Your task to perform on an android device: Add "razer blade" to the cart on walmart.com Image 0: 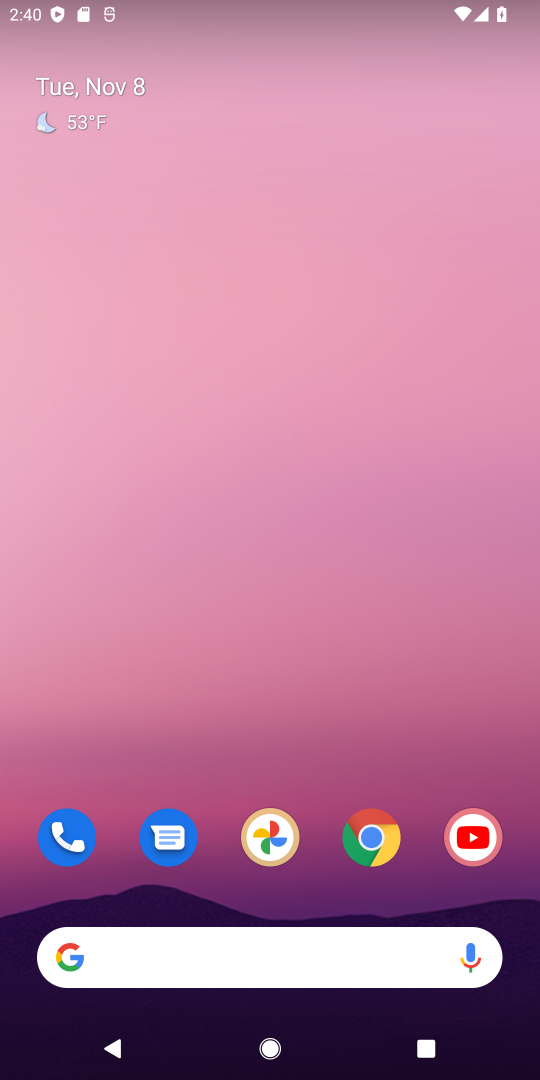
Step 0: click (370, 845)
Your task to perform on an android device: Add "razer blade" to the cart on walmart.com Image 1: 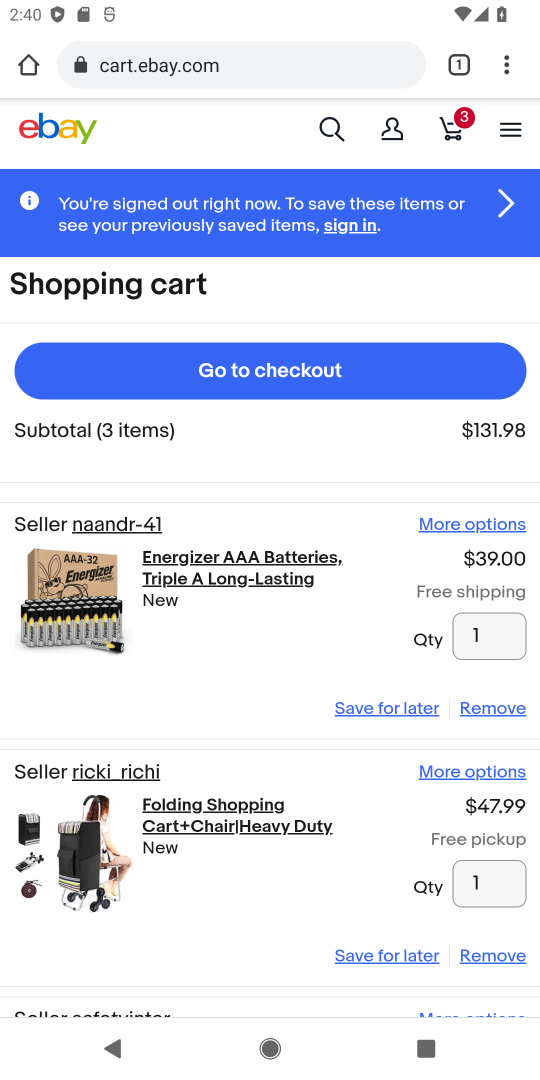
Step 1: click (280, 379)
Your task to perform on an android device: Add "razer blade" to the cart on walmart.com Image 2: 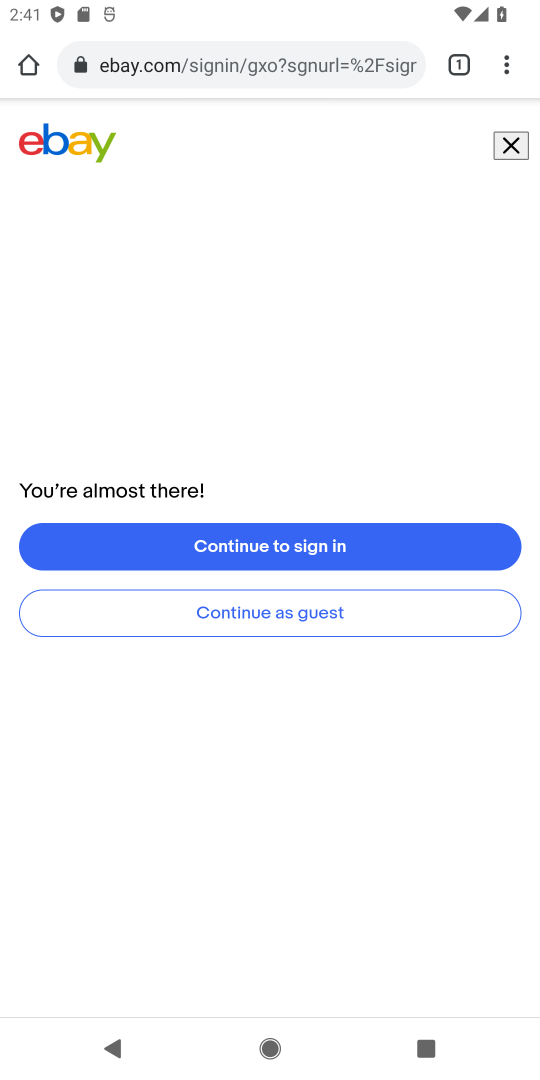
Step 2: click (244, 64)
Your task to perform on an android device: Add "razer blade" to the cart on walmart.com Image 3: 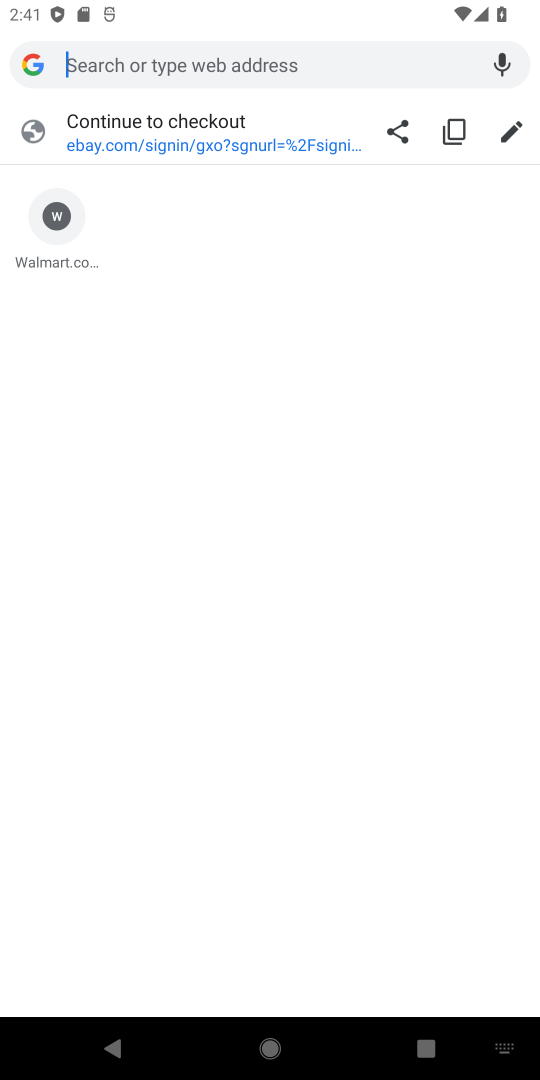
Step 3: type "walmart"
Your task to perform on an android device: Add "razer blade" to the cart on walmart.com Image 4: 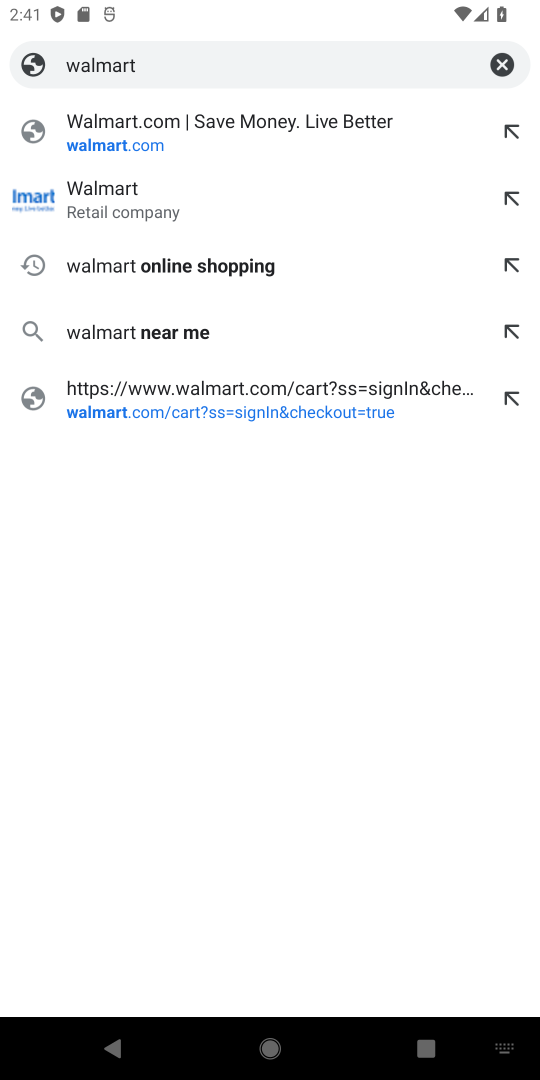
Step 4: click (86, 213)
Your task to perform on an android device: Add "razer blade" to the cart on walmart.com Image 5: 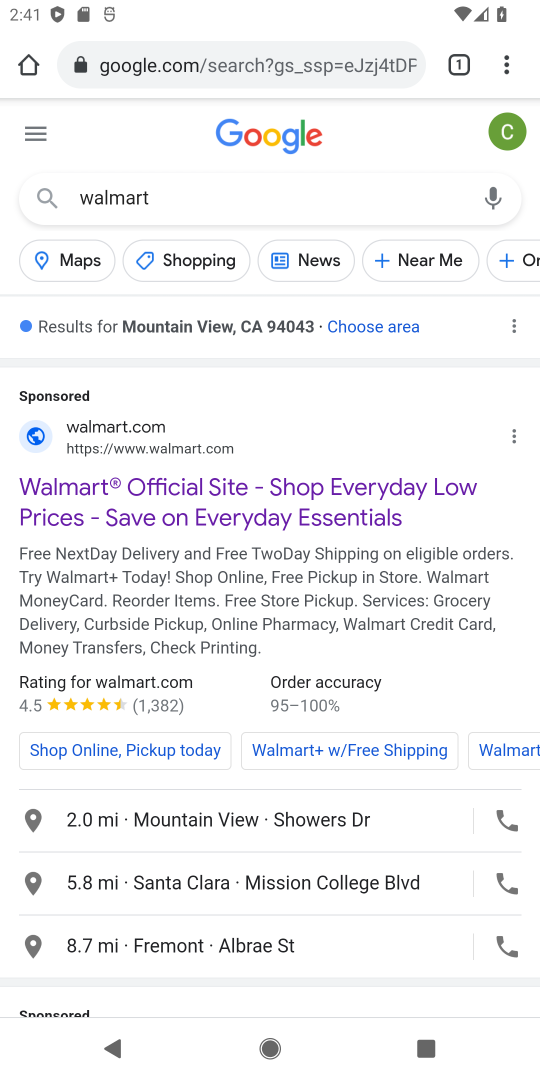
Step 5: drag from (182, 746) to (148, 212)
Your task to perform on an android device: Add "razer blade" to the cart on walmart.com Image 6: 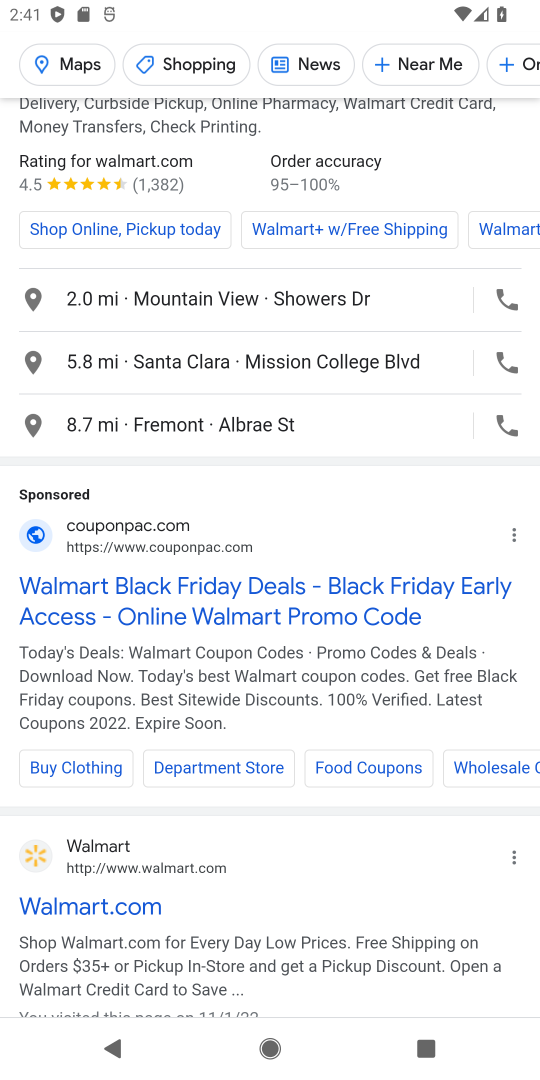
Step 6: click (149, 585)
Your task to perform on an android device: Add "razer blade" to the cart on walmart.com Image 7: 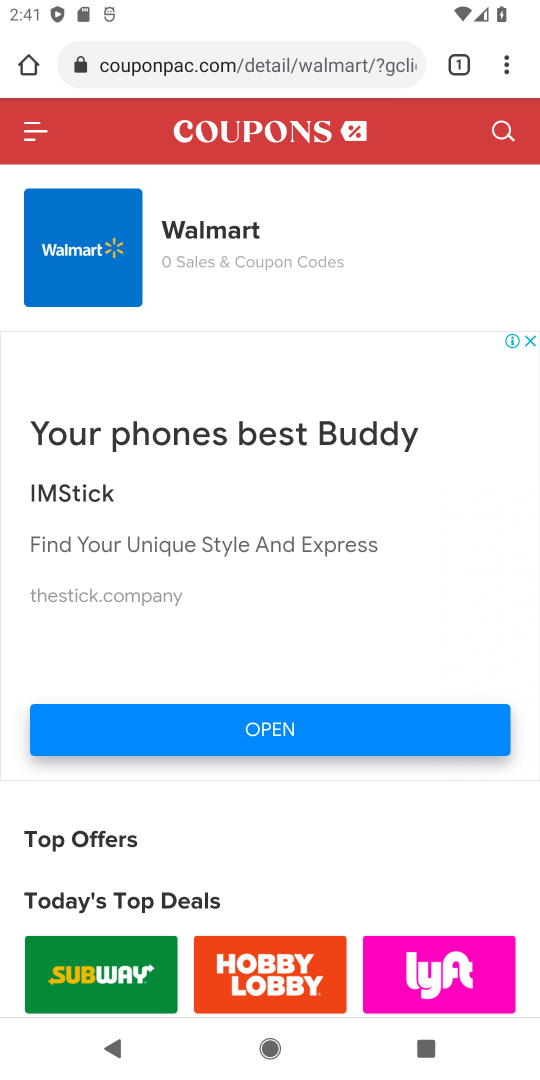
Step 7: click (497, 121)
Your task to perform on an android device: Add "razer blade" to the cart on walmart.com Image 8: 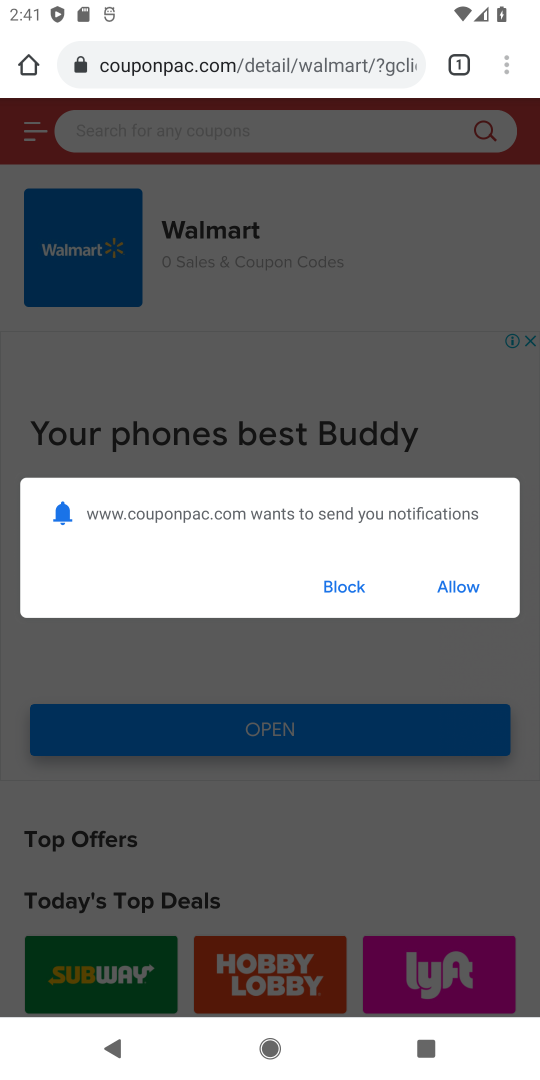
Step 8: click (434, 586)
Your task to perform on an android device: Add "razer blade" to the cart on walmart.com Image 9: 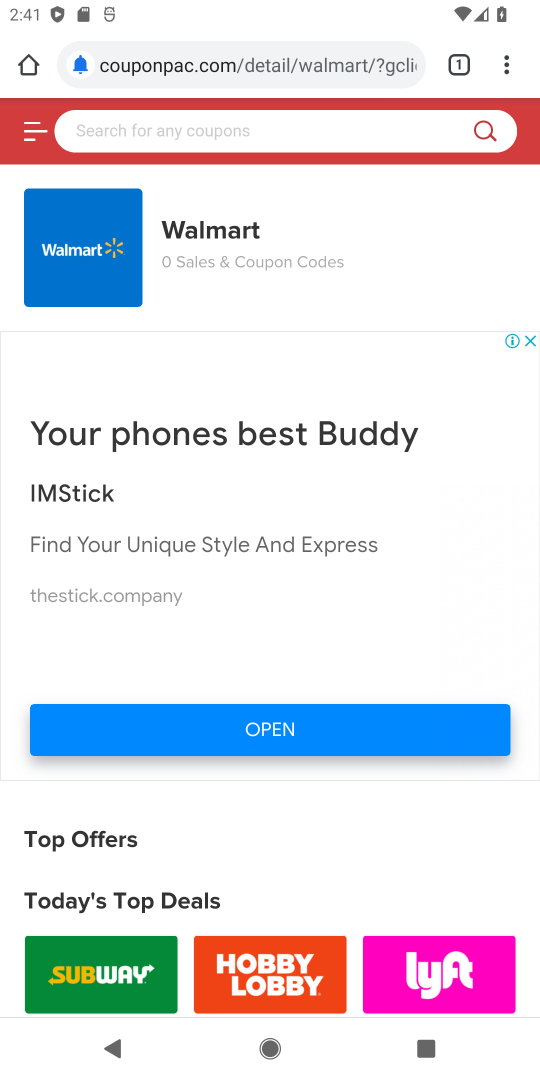
Step 9: click (215, 120)
Your task to perform on an android device: Add "razer blade" to the cart on walmart.com Image 10: 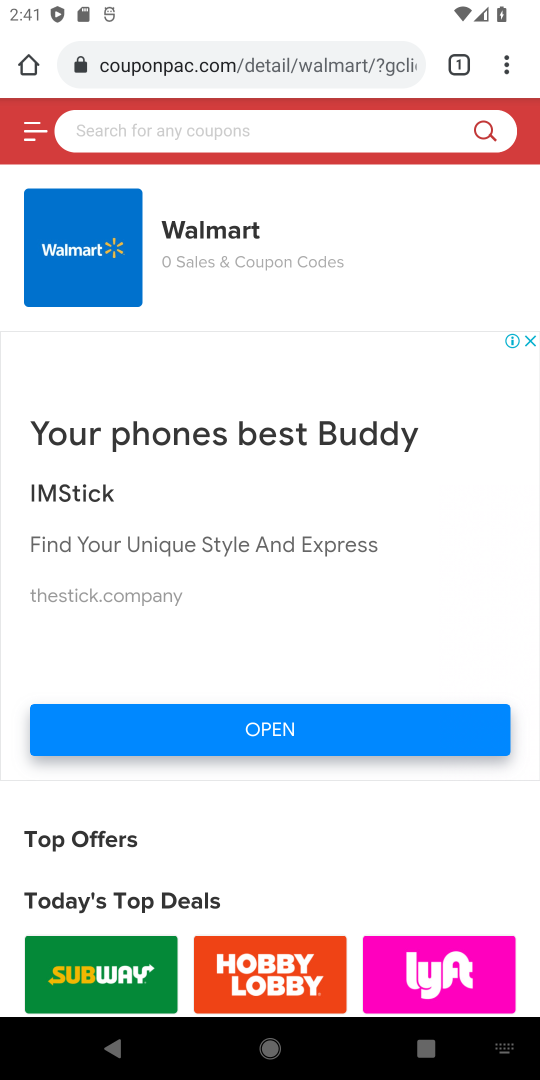
Step 10: type "razer blade"
Your task to perform on an android device: Add "razer blade" to the cart on walmart.com Image 11: 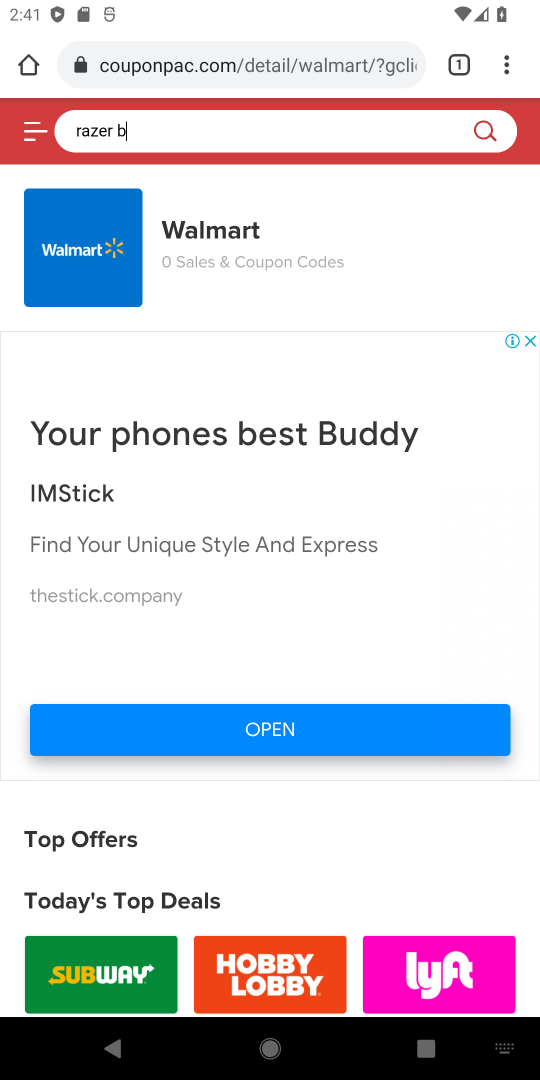
Step 11: type ""
Your task to perform on an android device: Add "razer blade" to the cart on walmart.com Image 12: 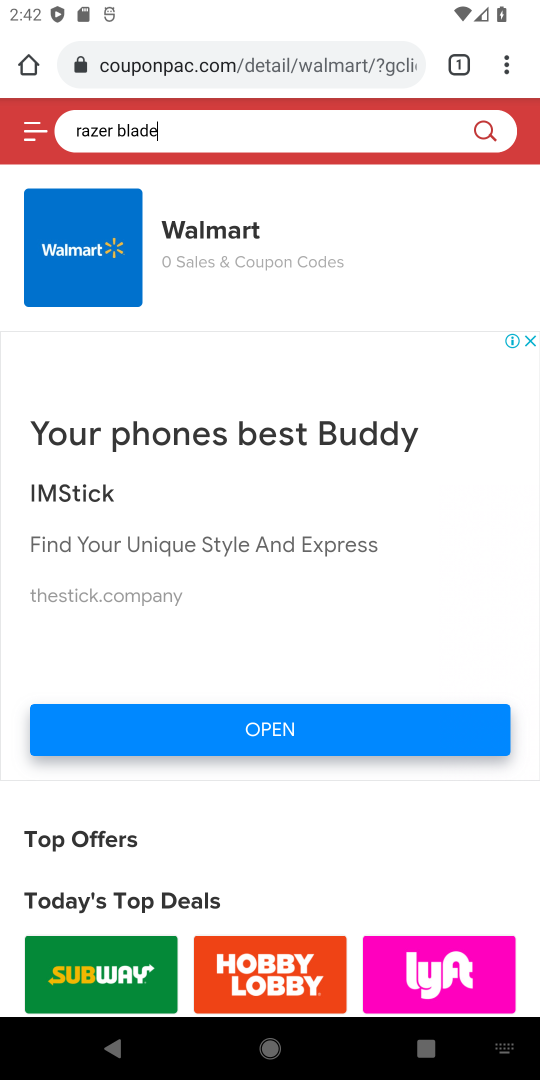
Step 12: drag from (304, 483) to (295, 326)
Your task to perform on an android device: Add "razer blade" to the cart on walmart.com Image 13: 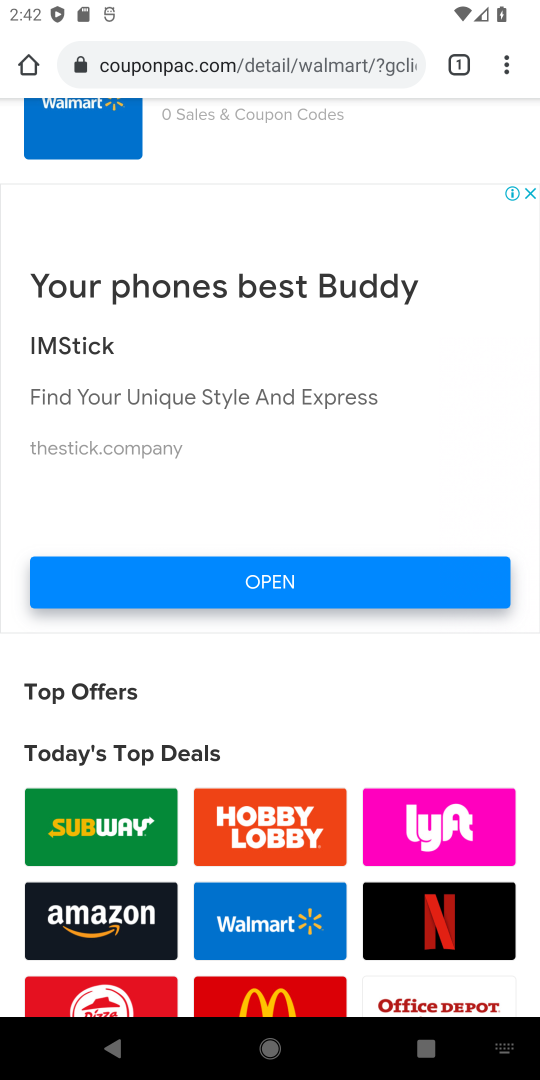
Step 13: click (531, 194)
Your task to perform on an android device: Add "razer blade" to the cart on walmart.com Image 14: 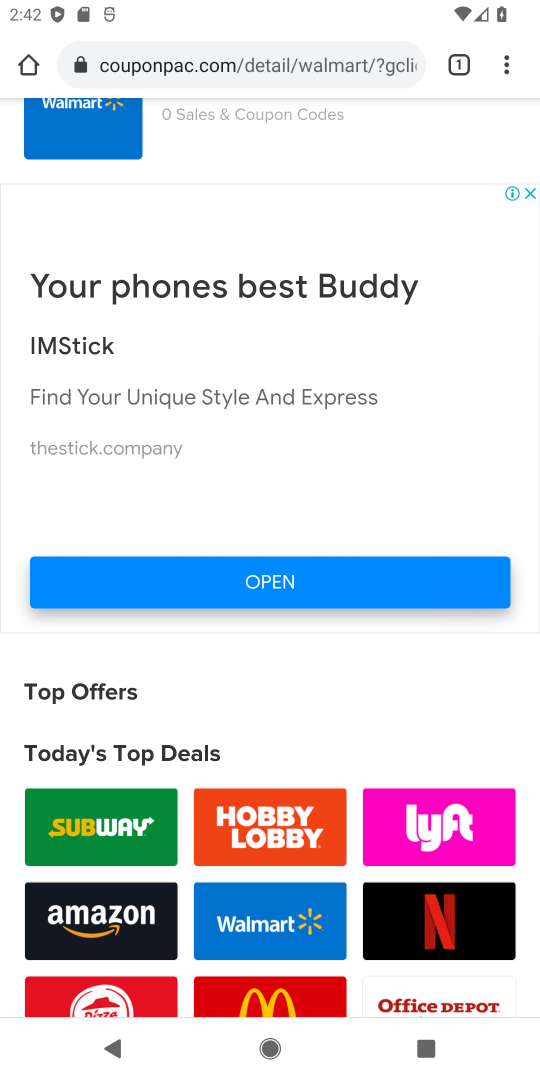
Step 14: click (532, 193)
Your task to perform on an android device: Add "razer blade" to the cart on walmart.com Image 15: 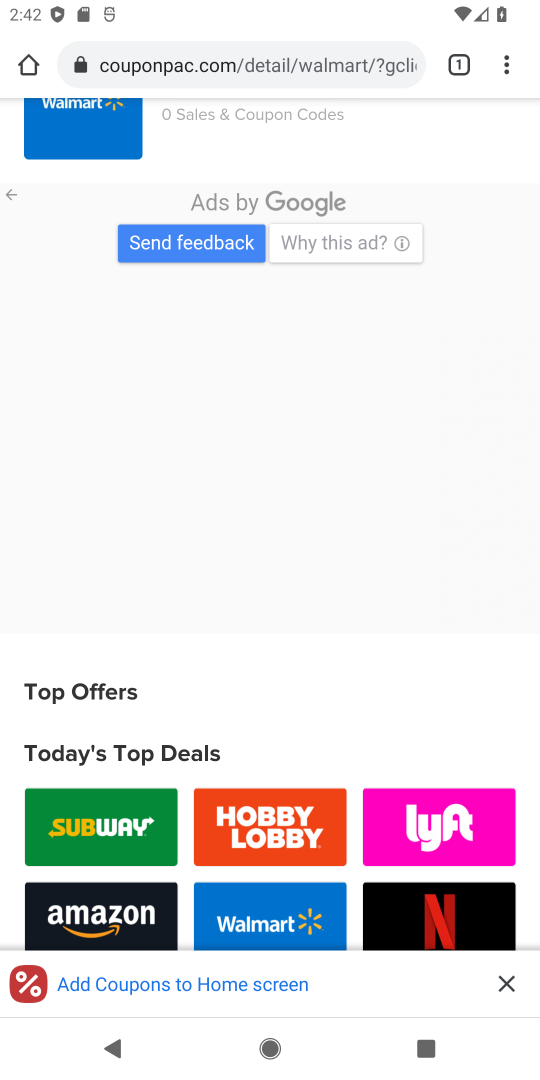
Step 15: drag from (302, 452) to (338, 866)
Your task to perform on an android device: Add "razer blade" to the cart on walmart.com Image 16: 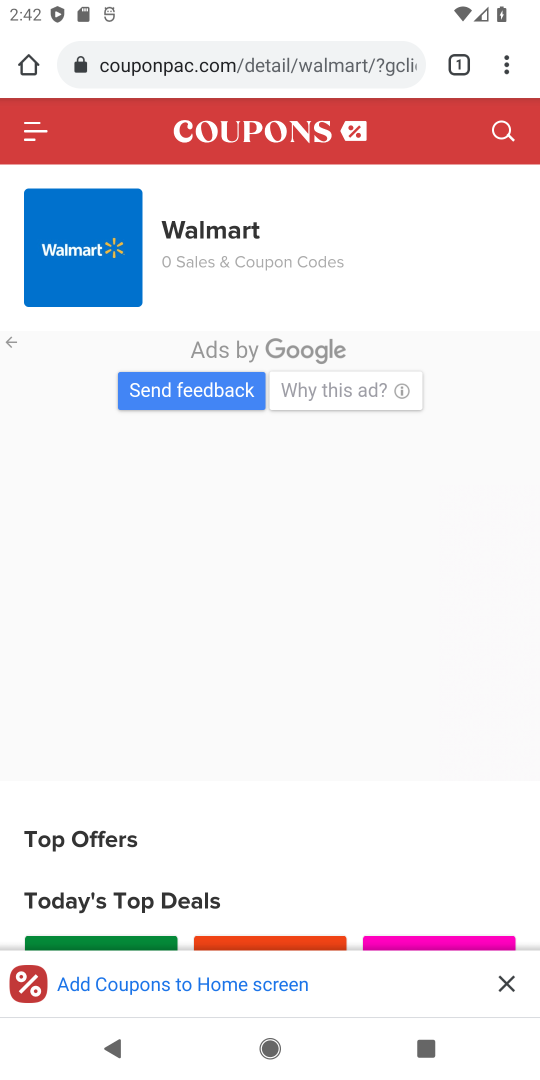
Step 16: click (162, 58)
Your task to perform on an android device: Add "razer blade" to the cart on walmart.com Image 17: 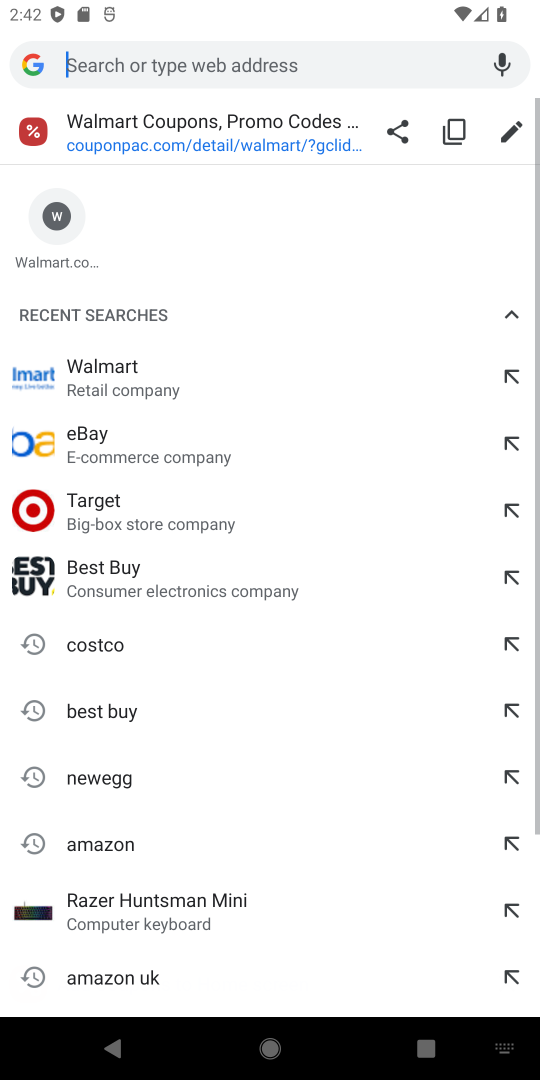
Step 17: click (87, 394)
Your task to perform on an android device: Add "razer blade" to the cart on walmart.com Image 18: 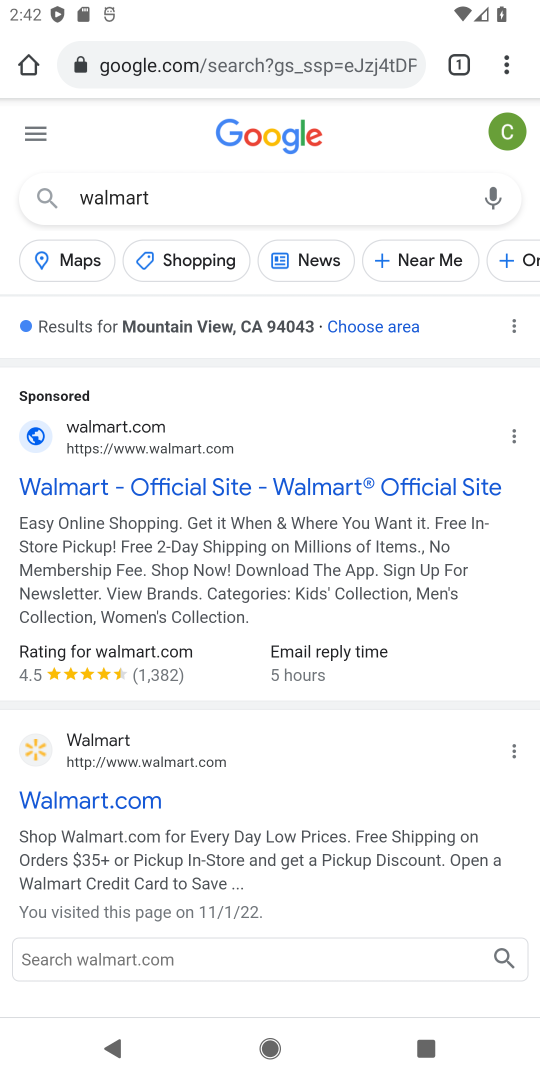
Step 18: drag from (206, 860) to (251, 311)
Your task to perform on an android device: Add "razer blade" to the cart on walmart.com Image 19: 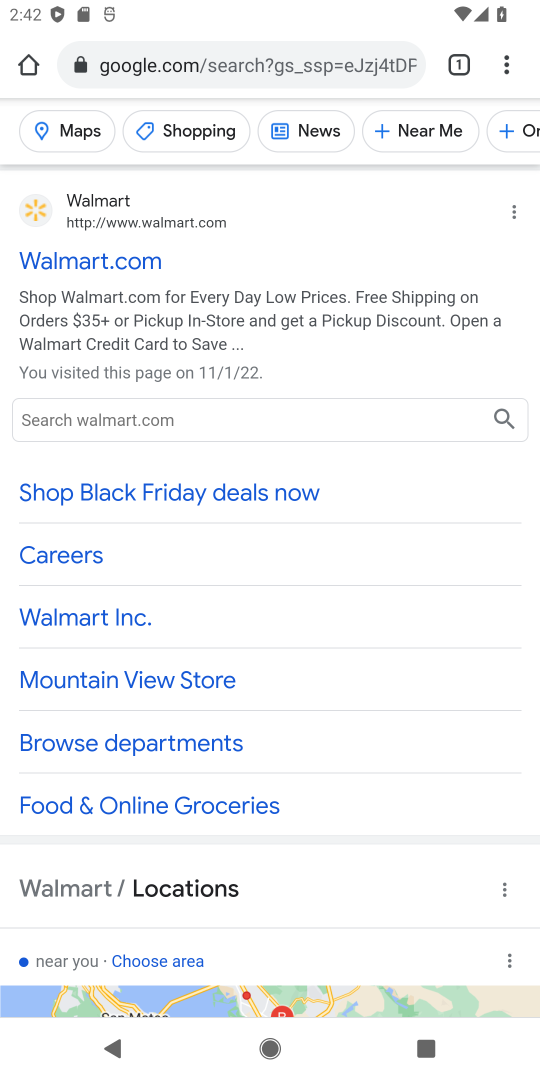
Step 19: click (70, 259)
Your task to perform on an android device: Add "razer blade" to the cart on walmart.com Image 20: 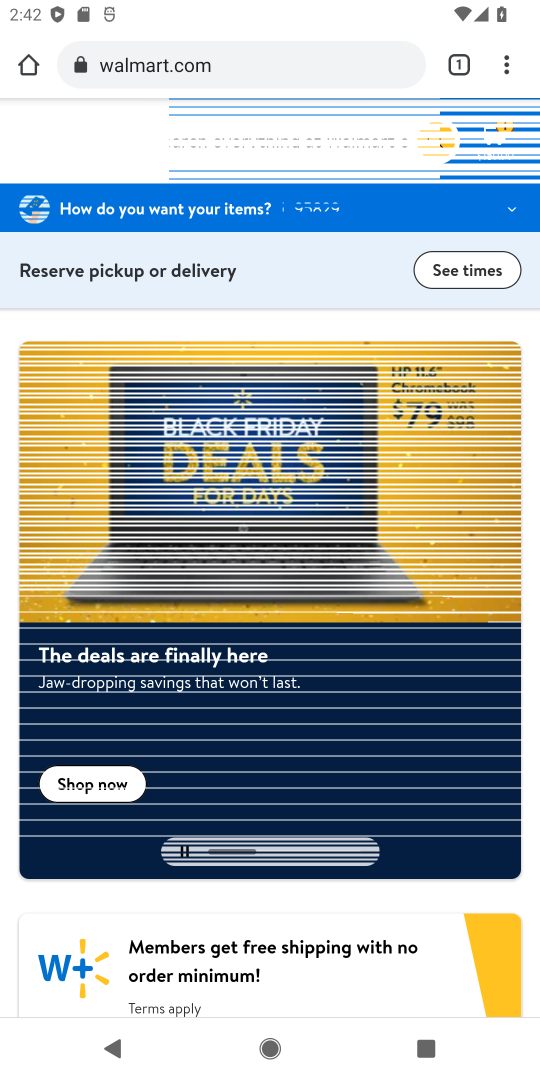
Step 20: click (323, 135)
Your task to perform on an android device: Add "razer blade" to the cart on walmart.com Image 21: 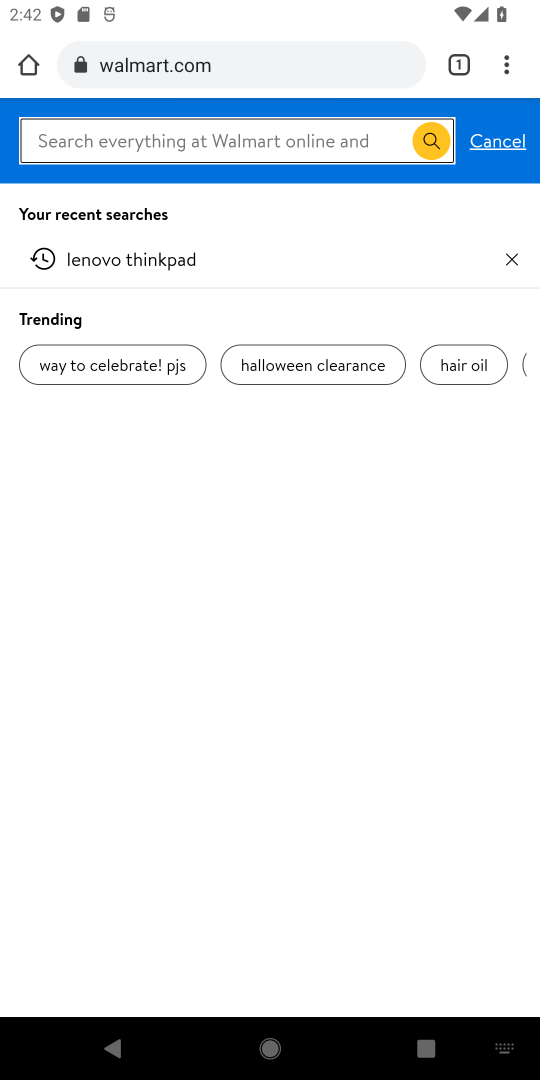
Step 21: type "razer blade"
Your task to perform on an android device: Add "razer blade" to the cart on walmart.com Image 22: 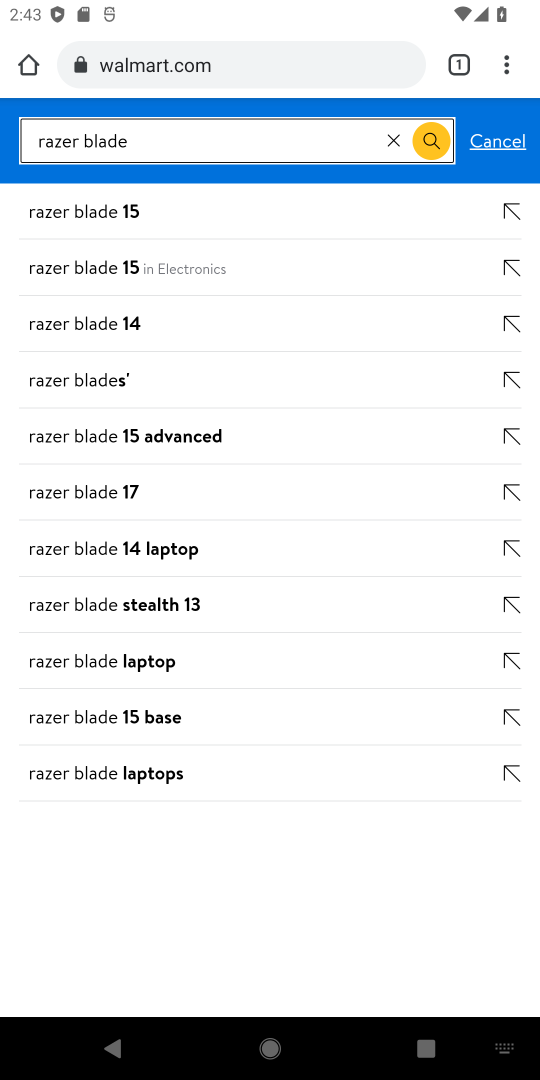
Step 22: click (51, 378)
Your task to perform on an android device: Add "razer blade" to the cart on walmart.com Image 23: 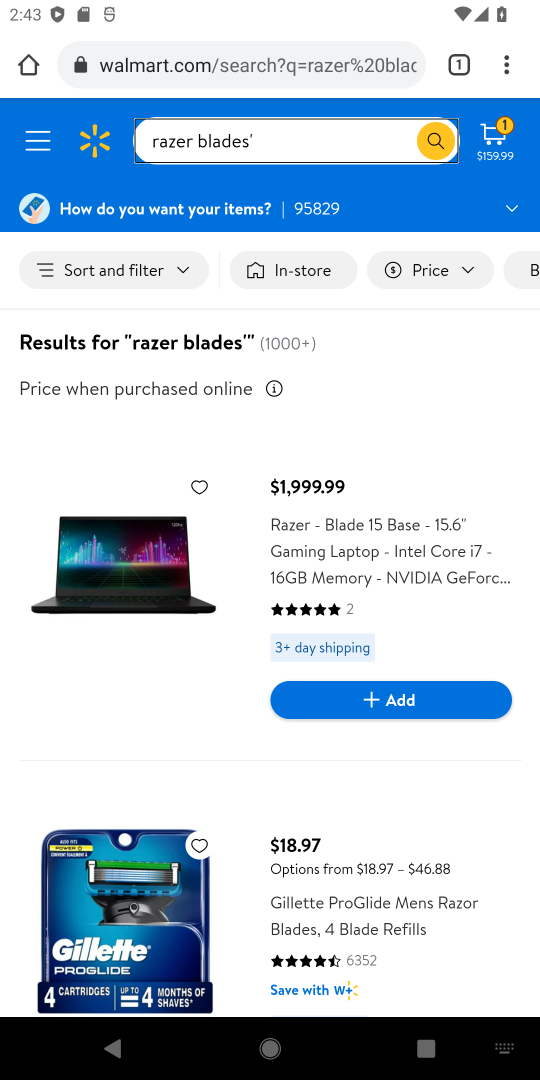
Step 23: click (327, 518)
Your task to perform on an android device: Add "razer blade" to the cart on walmart.com Image 24: 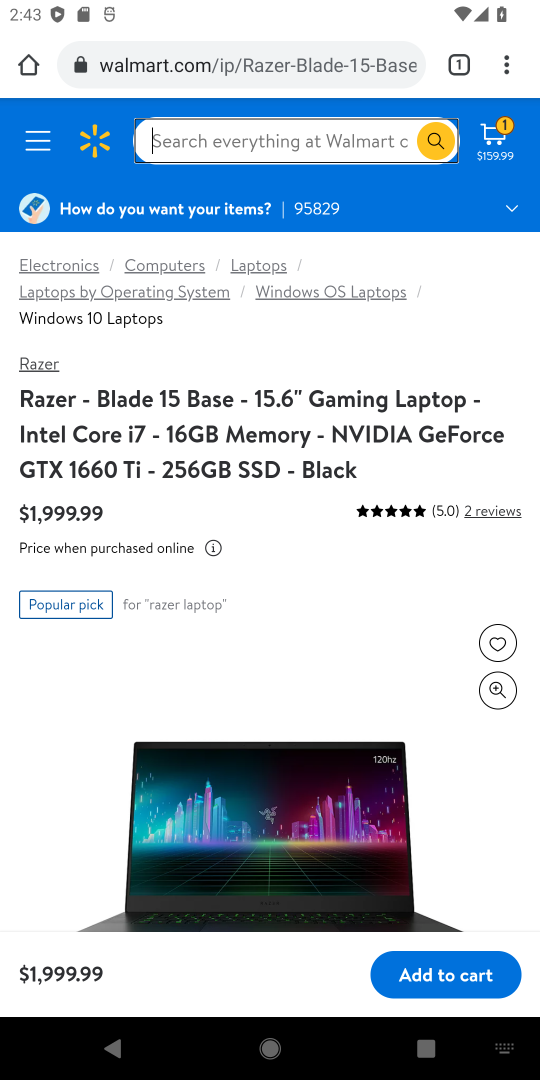
Step 24: drag from (284, 654) to (244, 382)
Your task to perform on an android device: Add "razer blade" to the cart on walmart.com Image 25: 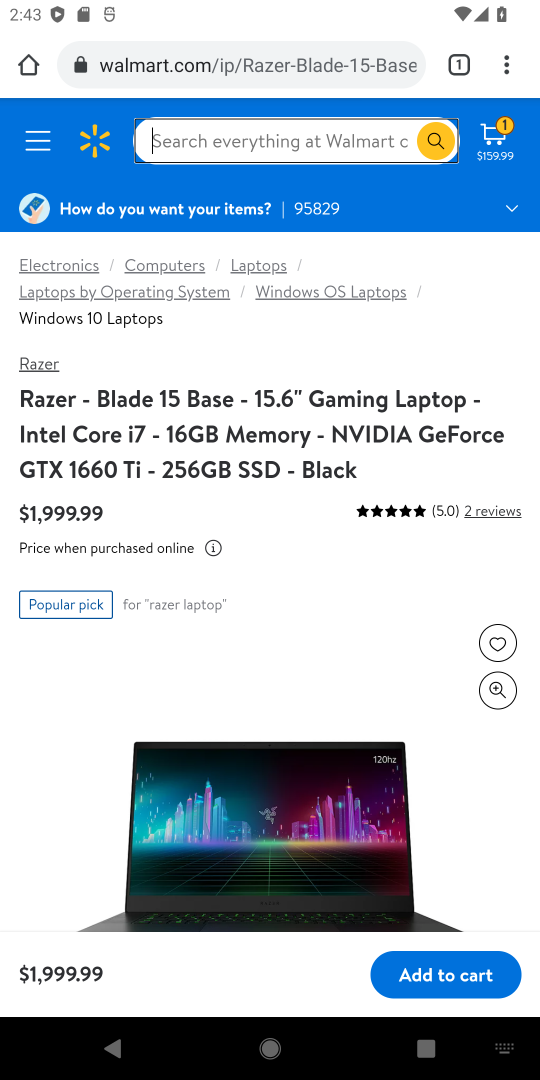
Step 25: drag from (227, 720) to (232, 381)
Your task to perform on an android device: Add "razer blade" to the cart on walmart.com Image 26: 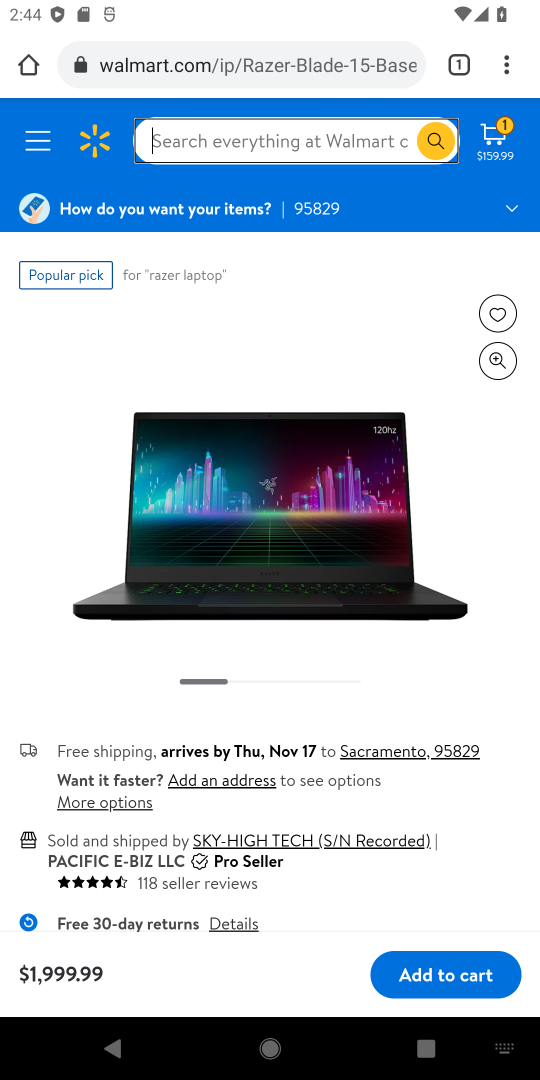
Step 26: type "razer blade"
Your task to perform on an android device: Add "razer blade" to the cart on walmart.com Image 27: 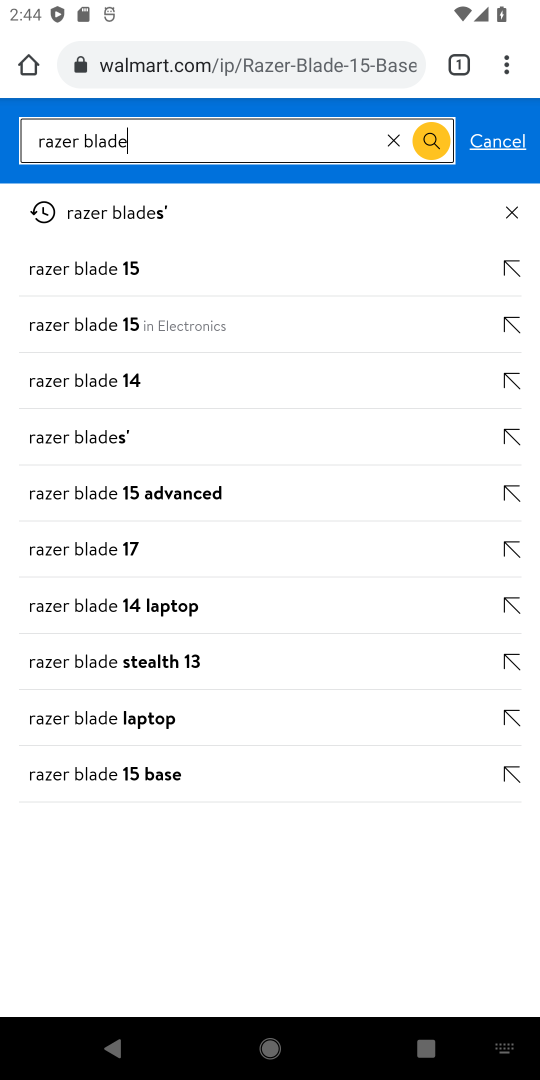
Step 27: click (103, 267)
Your task to perform on an android device: Add "razer blade" to the cart on walmart.com Image 28: 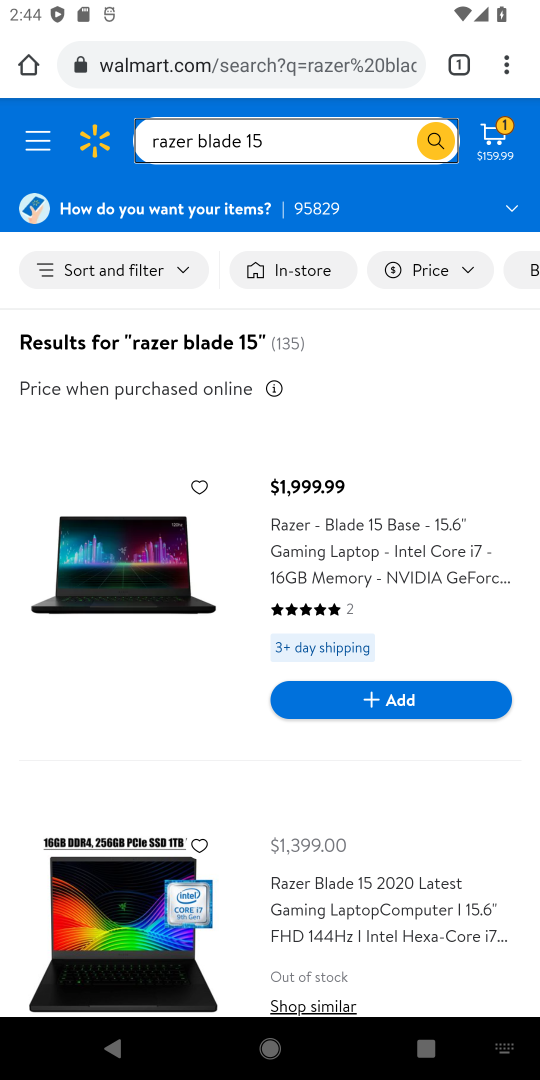
Step 28: click (354, 522)
Your task to perform on an android device: Add "razer blade" to the cart on walmart.com Image 29: 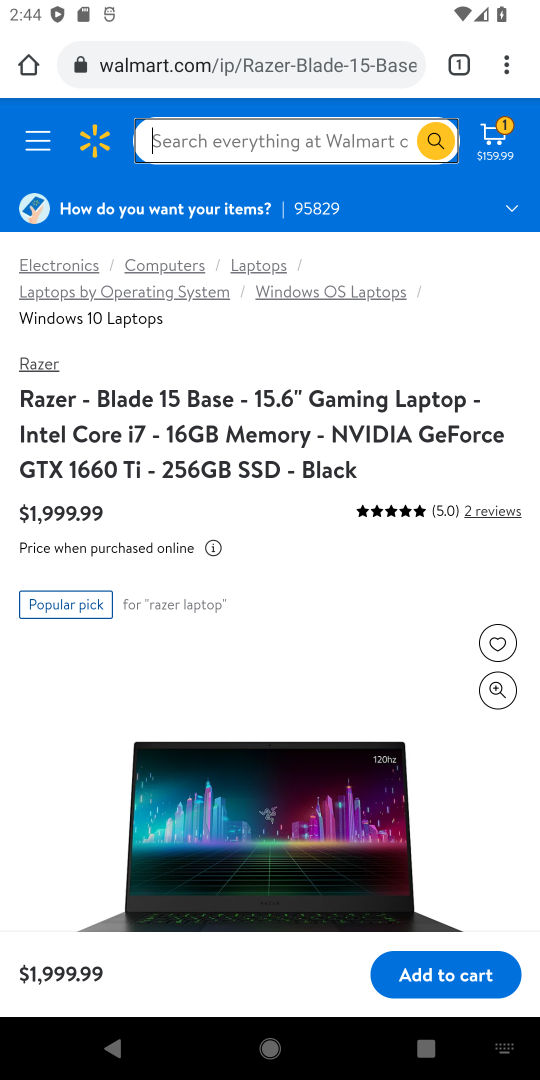
Step 29: click (441, 974)
Your task to perform on an android device: Add "razer blade" to the cart on walmart.com Image 30: 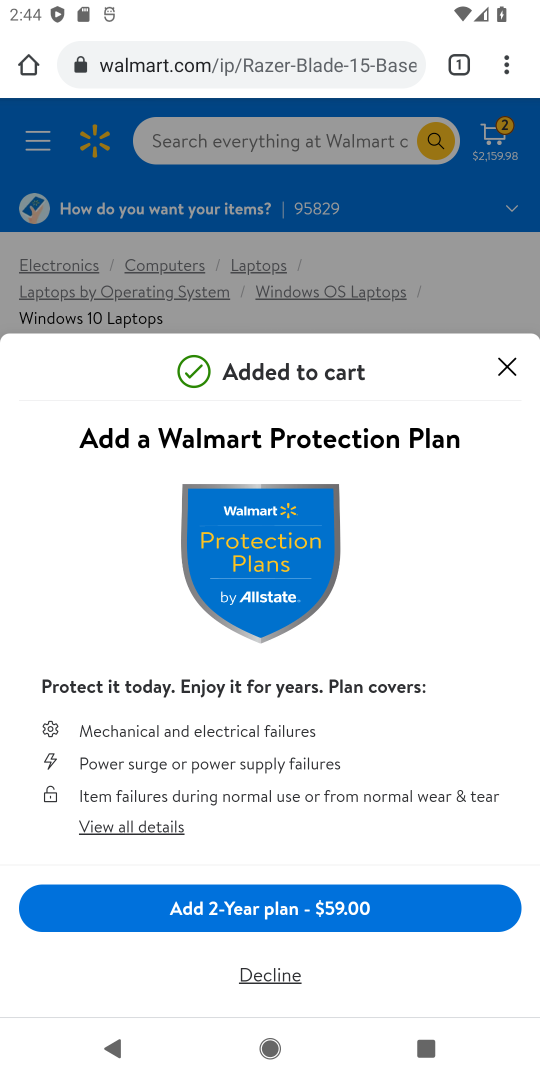
Step 30: click (504, 365)
Your task to perform on an android device: Add "razer blade" to the cart on walmart.com Image 31: 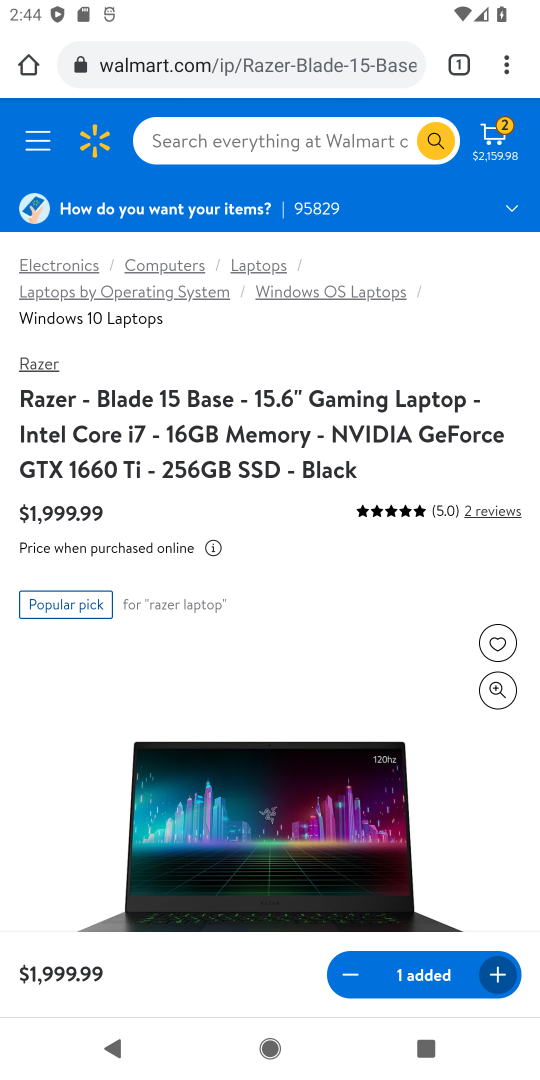
Step 31: task complete